Your task to perform on an android device: toggle notifications settings in the gmail app Image 0: 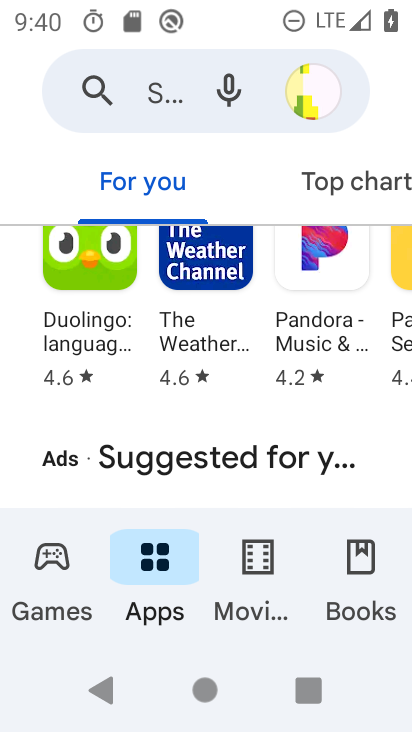
Step 0: press home button
Your task to perform on an android device: toggle notifications settings in the gmail app Image 1: 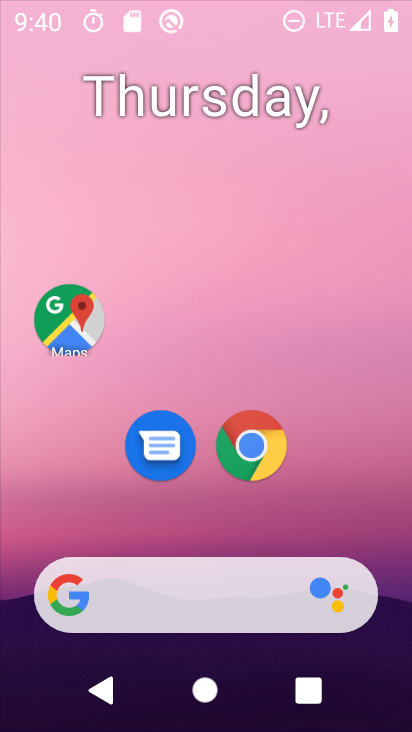
Step 1: drag from (219, 464) to (235, 113)
Your task to perform on an android device: toggle notifications settings in the gmail app Image 2: 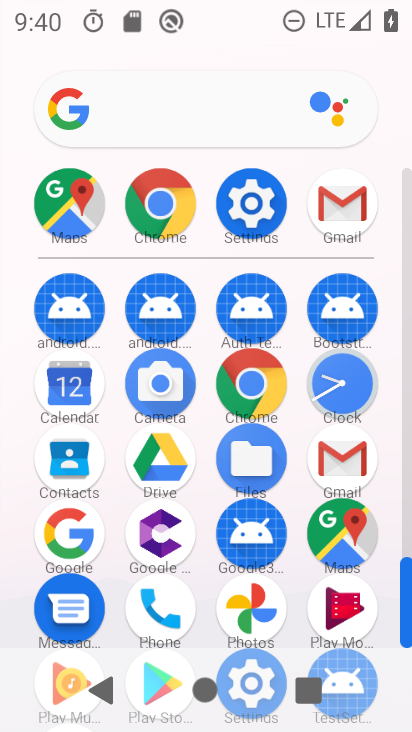
Step 2: click (328, 454)
Your task to perform on an android device: toggle notifications settings in the gmail app Image 3: 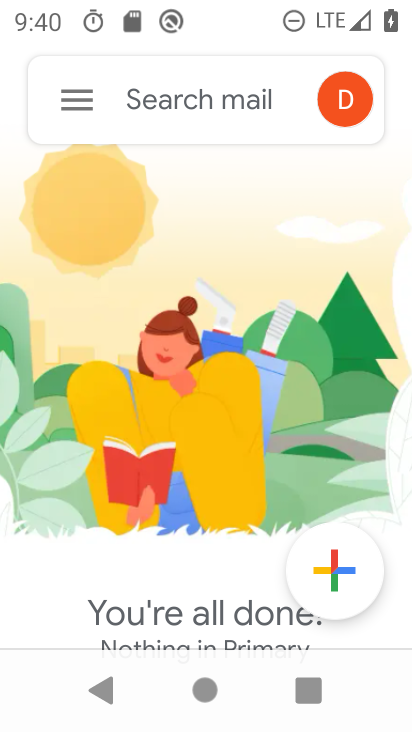
Step 3: click (51, 91)
Your task to perform on an android device: toggle notifications settings in the gmail app Image 4: 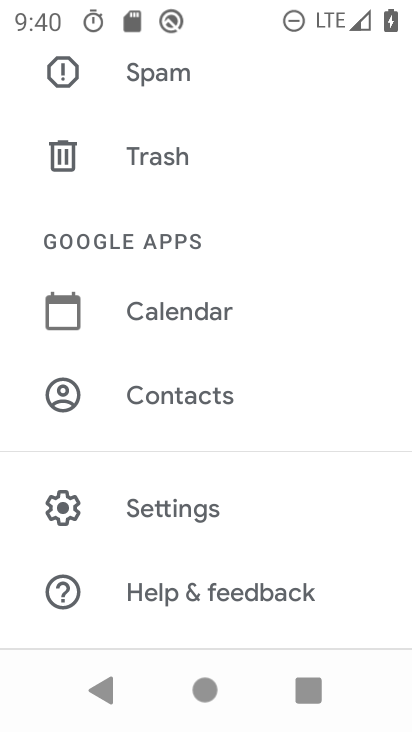
Step 4: click (190, 511)
Your task to perform on an android device: toggle notifications settings in the gmail app Image 5: 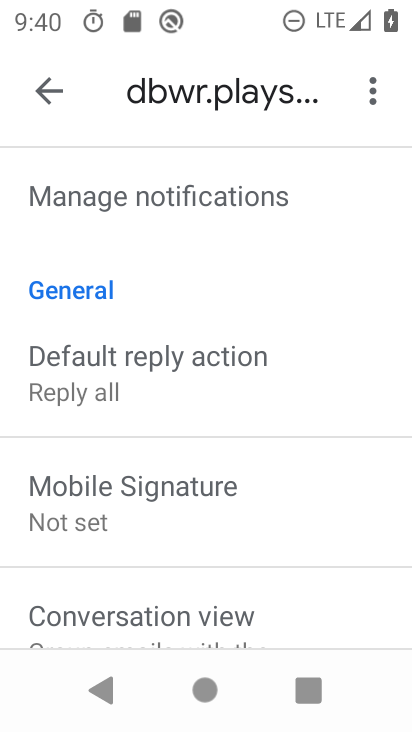
Step 5: drag from (213, 327) to (287, 709)
Your task to perform on an android device: toggle notifications settings in the gmail app Image 6: 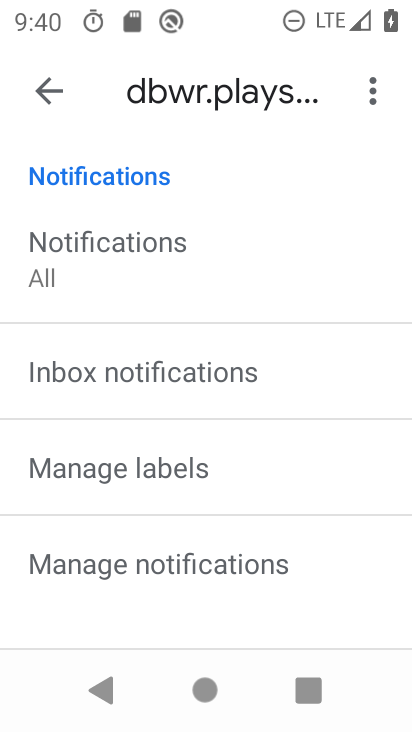
Step 6: drag from (172, 243) to (305, 729)
Your task to perform on an android device: toggle notifications settings in the gmail app Image 7: 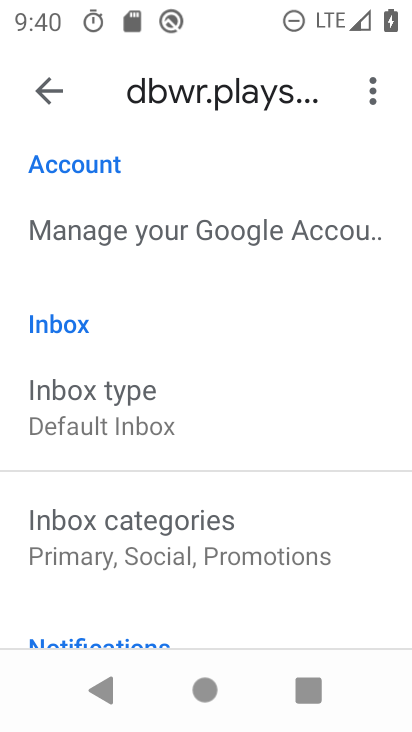
Step 7: drag from (191, 541) to (260, 90)
Your task to perform on an android device: toggle notifications settings in the gmail app Image 8: 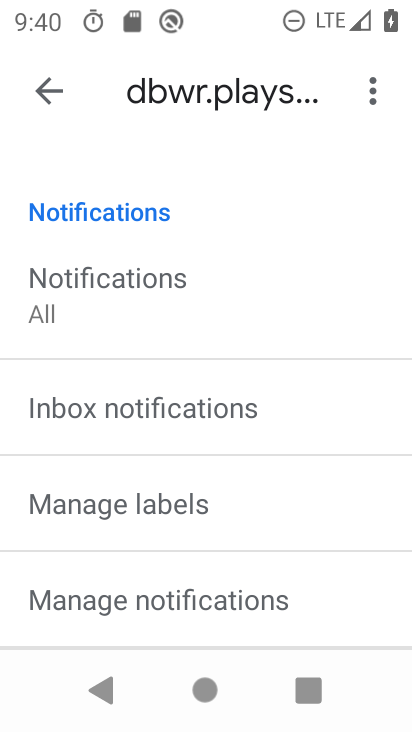
Step 8: drag from (207, 597) to (277, 235)
Your task to perform on an android device: toggle notifications settings in the gmail app Image 9: 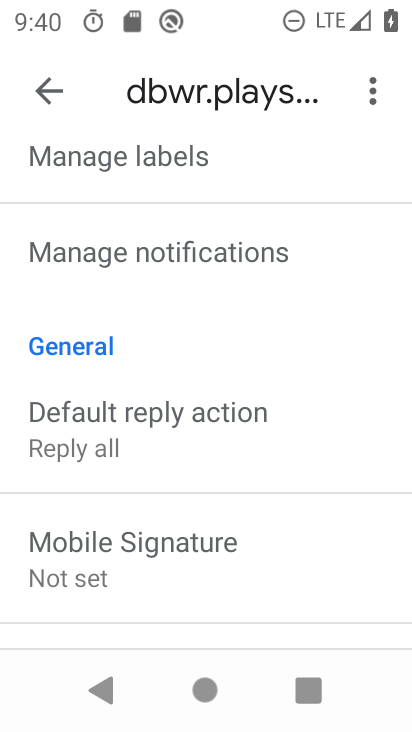
Step 9: click (198, 255)
Your task to perform on an android device: toggle notifications settings in the gmail app Image 10: 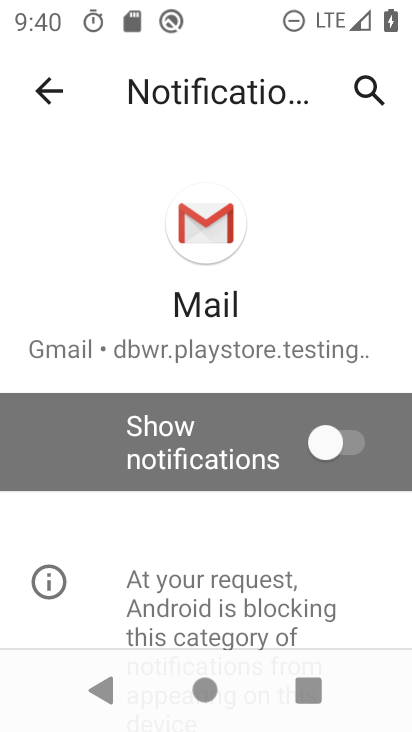
Step 10: click (310, 457)
Your task to perform on an android device: toggle notifications settings in the gmail app Image 11: 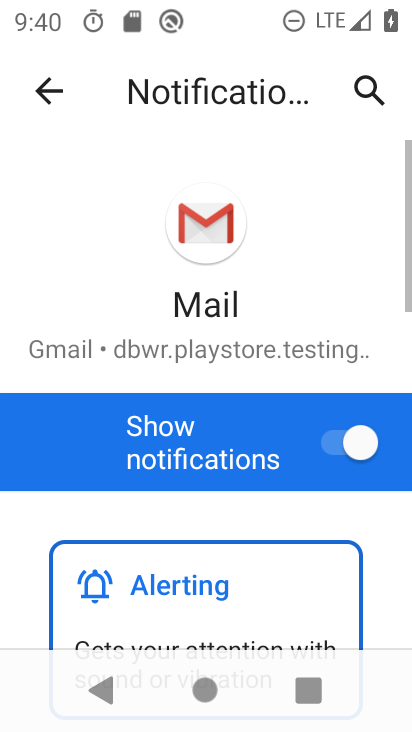
Step 11: task complete